Your task to perform on an android device: change the clock display to analog Image 0: 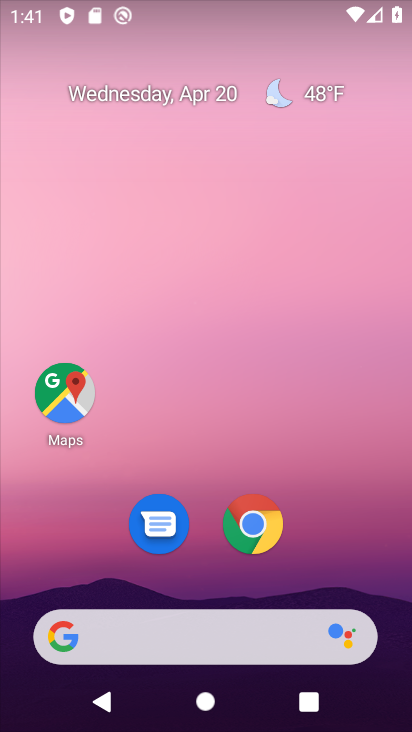
Step 0: drag from (336, 497) to (315, 36)
Your task to perform on an android device: change the clock display to analog Image 1: 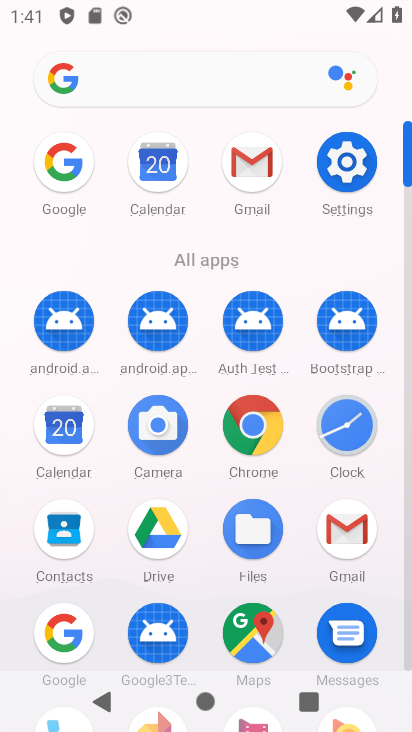
Step 1: click (352, 433)
Your task to perform on an android device: change the clock display to analog Image 2: 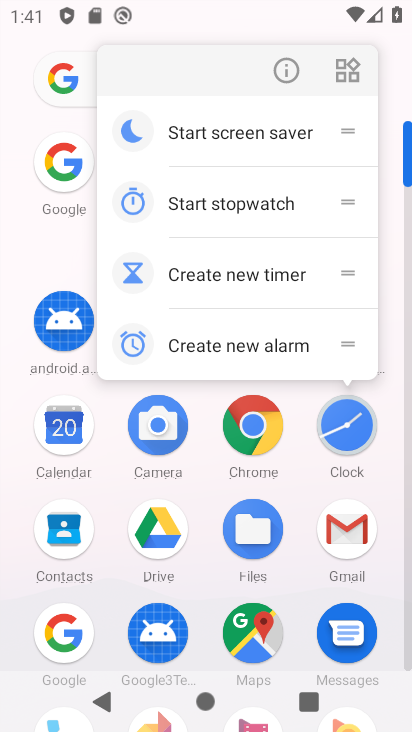
Step 2: click (353, 435)
Your task to perform on an android device: change the clock display to analog Image 3: 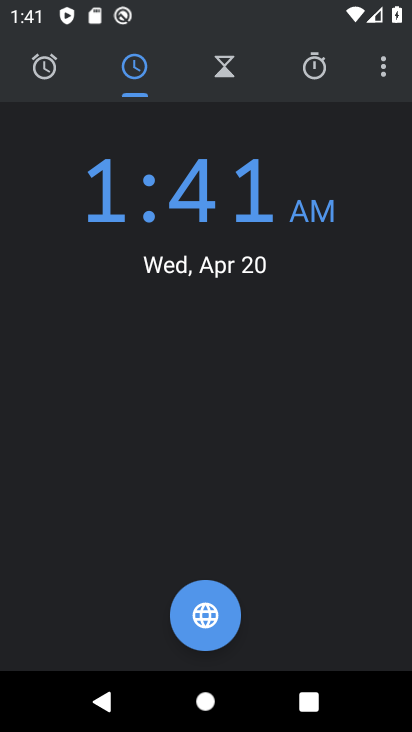
Step 3: click (383, 68)
Your task to perform on an android device: change the clock display to analog Image 4: 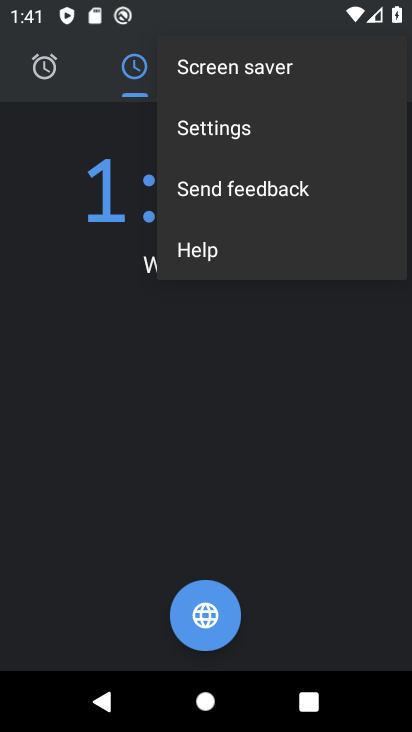
Step 4: click (306, 123)
Your task to perform on an android device: change the clock display to analog Image 5: 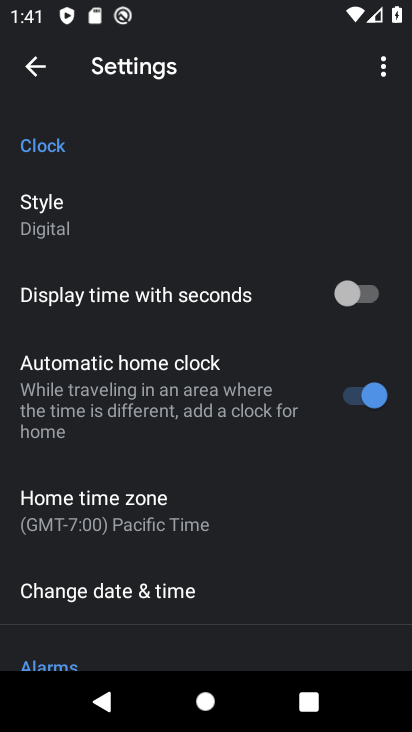
Step 5: click (179, 214)
Your task to perform on an android device: change the clock display to analog Image 6: 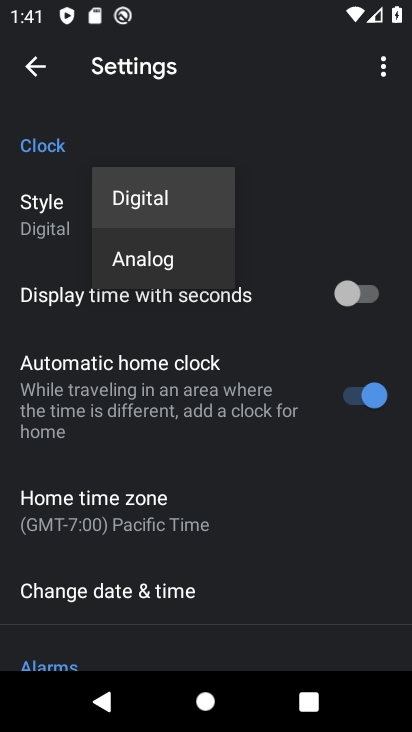
Step 6: click (179, 255)
Your task to perform on an android device: change the clock display to analog Image 7: 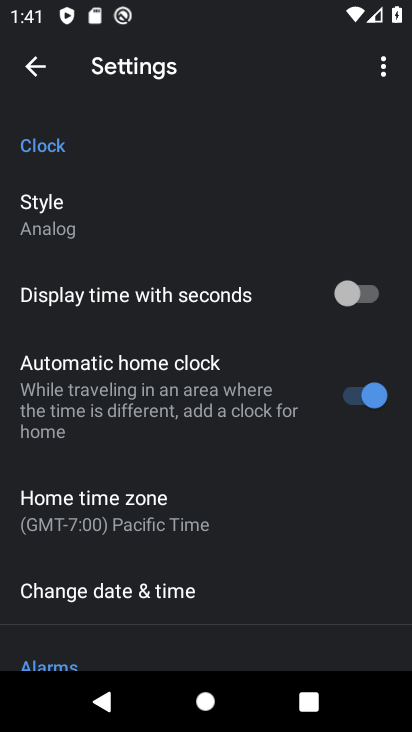
Step 7: click (38, 74)
Your task to perform on an android device: change the clock display to analog Image 8: 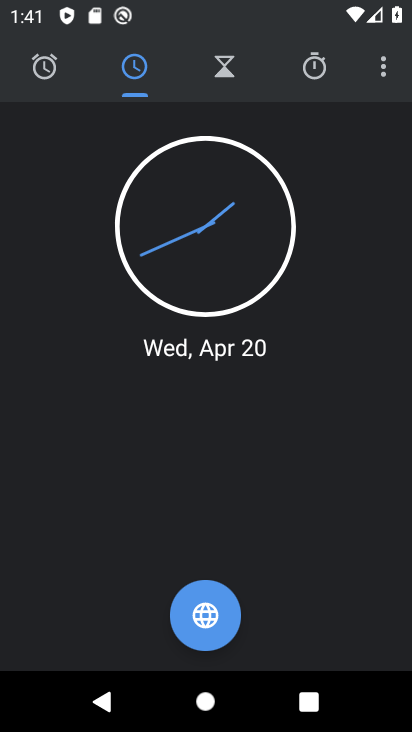
Step 8: task complete